Your task to perform on an android device: Toggle the flashlight Image 0: 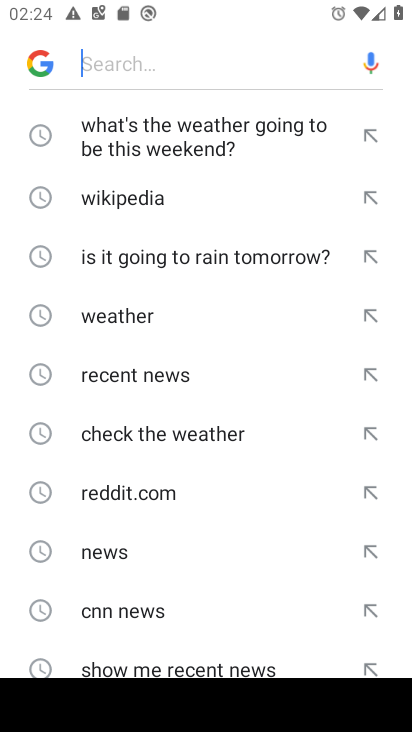
Step 0: press home button
Your task to perform on an android device: Toggle the flashlight Image 1: 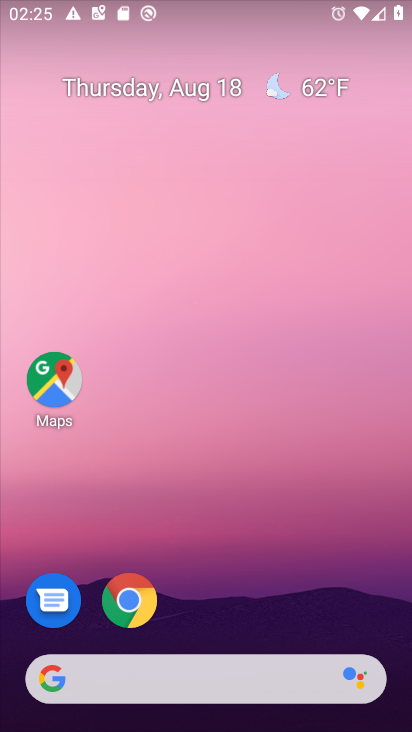
Step 1: task complete